Your task to perform on an android device: turn off data saver in the chrome app Image 0: 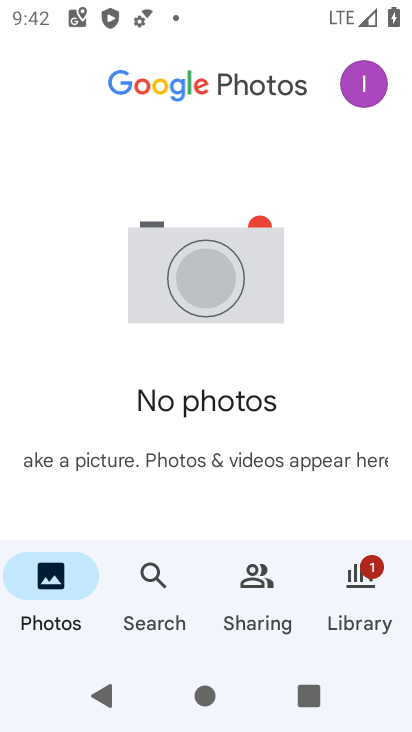
Step 0: press home button
Your task to perform on an android device: turn off data saver in the chrome app Image 1: 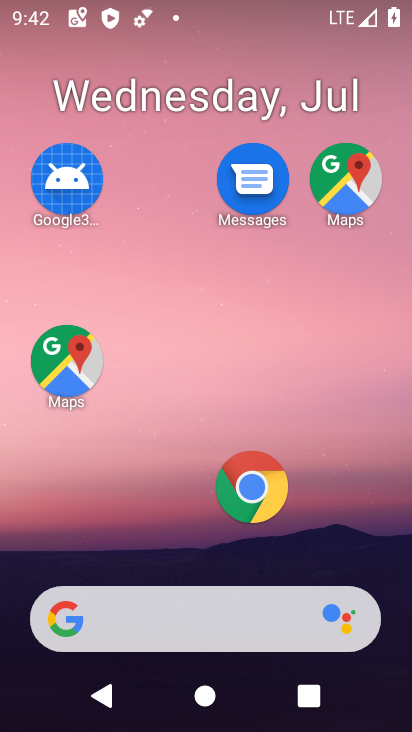
Step 1: click (244, 515)
Your task to perform on an android device: turn off data saver in the chrome app Image 2: 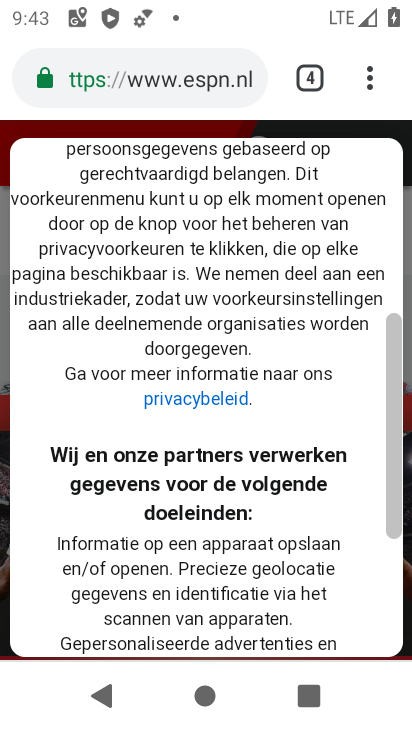
Step 2: click (368, 92)
Your task to perform on an android device: turn off data saver in the chrome app Image 3: 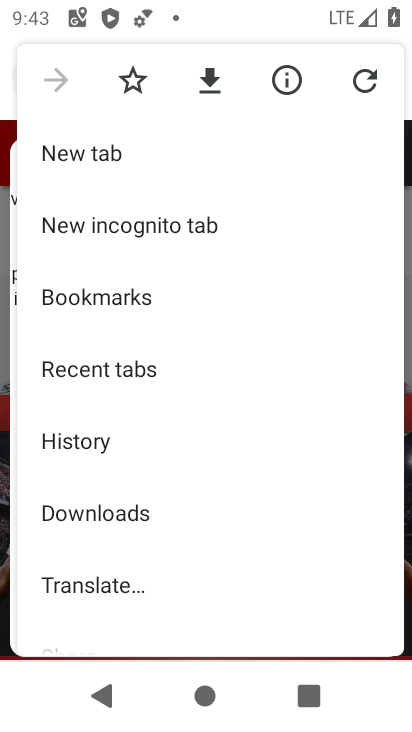
Step 3: drag from (73, 531) to (47, 204)
Your task to perform on an android device: turn off data saver in the chrome app Image 4: 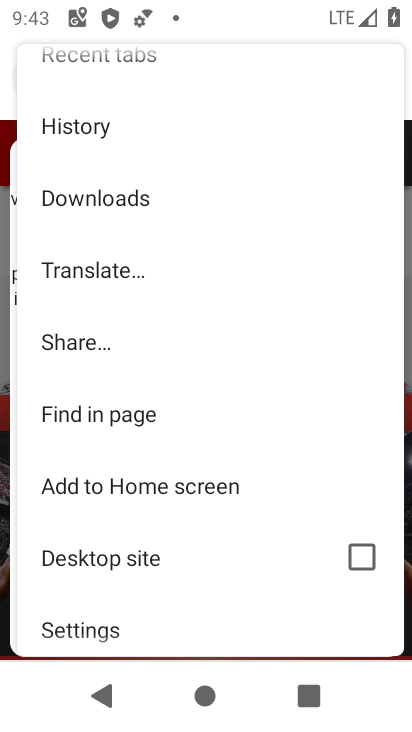
Step 4: click (72, 614)
Your task to perform on an android device: turn off data saver in the chrome app Image 5: 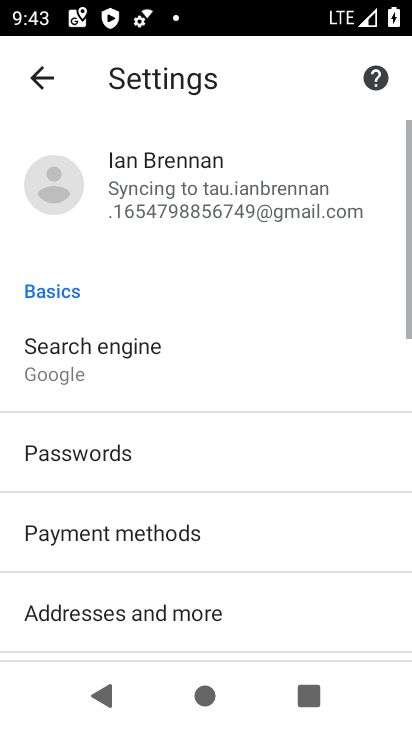
Step 5: drag from (72, 614) to (120, 7)
Your task to perform on an android device: turn off data saver in the chrome app Image 6: 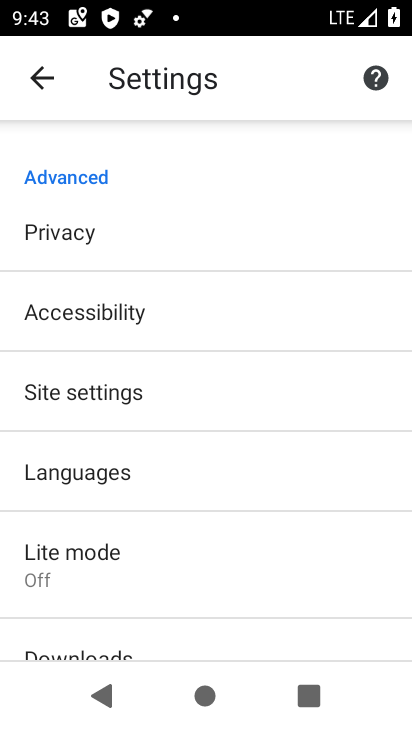
Step 6: click (83, 561)
Your task to perform on an android device: turn off data saver in the chrome app Image 7: 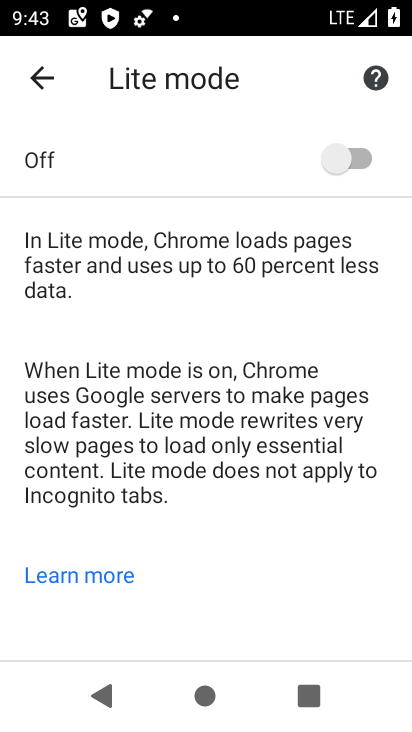
Step 7: click (83, 561)
Your task to perform on an android device: turn off data saver in the chrome app Image 8: 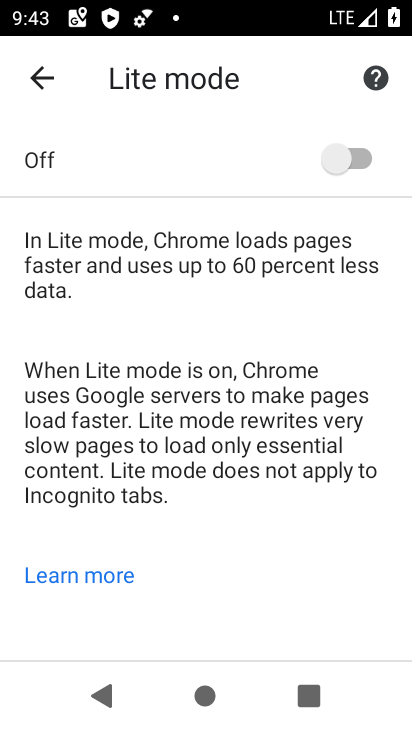
Step 8: task complete